Your task to perform on an android device: move a message to another label in the gmail app Image 0: 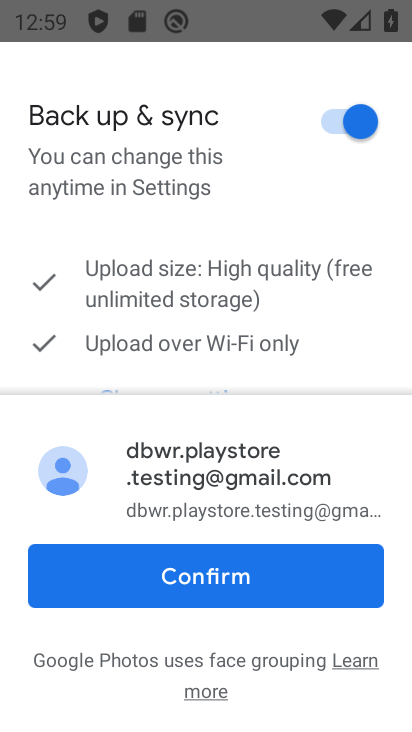
Step 0: press home button
Your task to perform on an android device: move a message to another label in the gmail app Image 1: 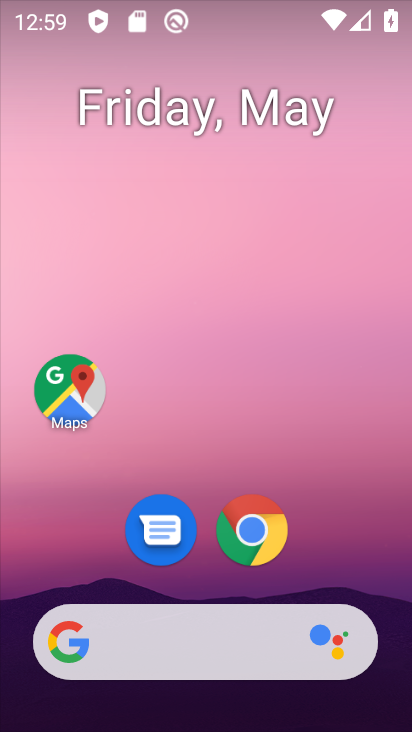
Step 1: drag from (312, 324) to (288, 0)
Your task to perform on an android device: move a message to another label in the gmail app Image 2: 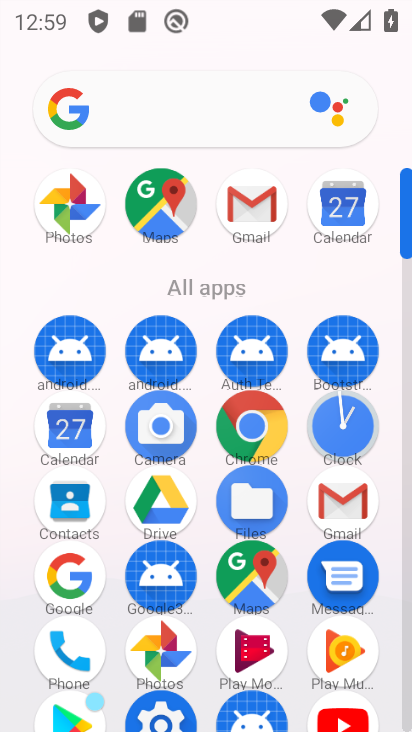
Step 2: click (355, 500)
Your task to perform on an android device: move a message to another label in the gmail app Image 3: 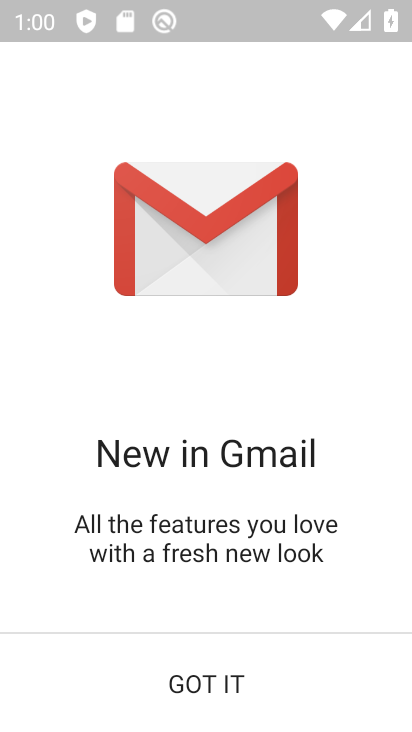
Step 3: click (194, 688)
Your task to perform on an android device: move a message to another label in the gmail app Image 4: 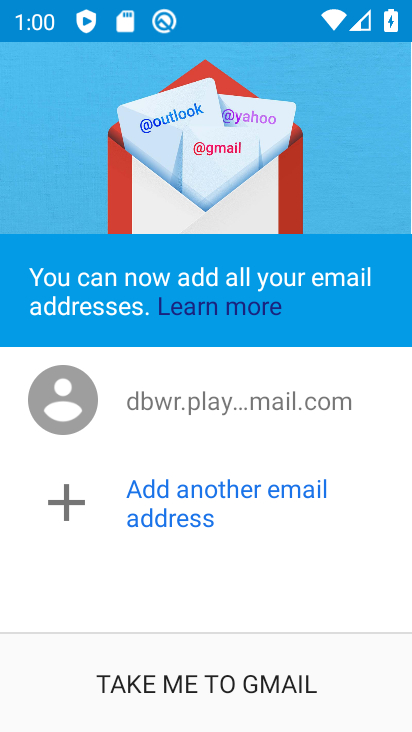
Step 4: click (211, 688)
Your task to perform on an android device: move a message to another label in the gmail app Image 5: 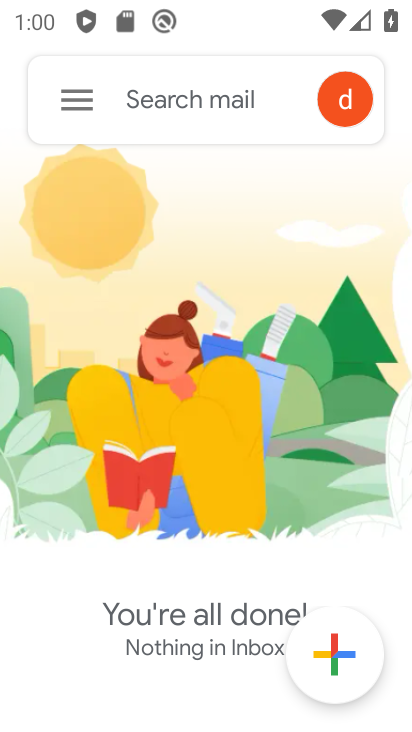
Step 5: click (69, 87)
Your task to perform on an android device: move a message to another label in the gmail app Image 6: 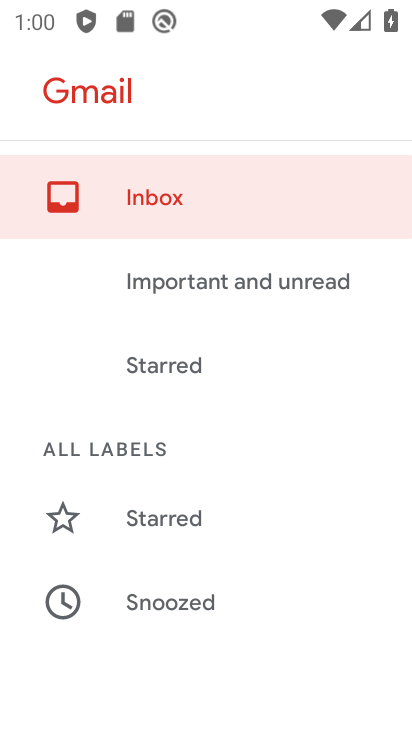
Step 6: drag from (185, 539) to (178, 114)
Your task to perform on an android device: move a message to another label in the gmail app Image 7: 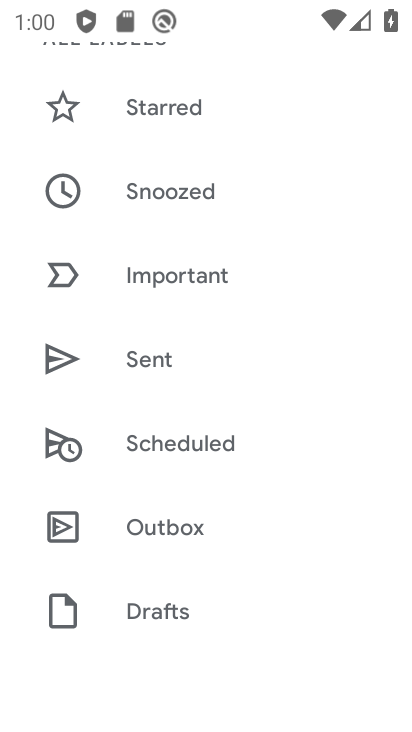
Step 7: drag from (193, 588) to (182, 189)
Your task to perform on an android device: move a message to another label in the gmail app Image 8: 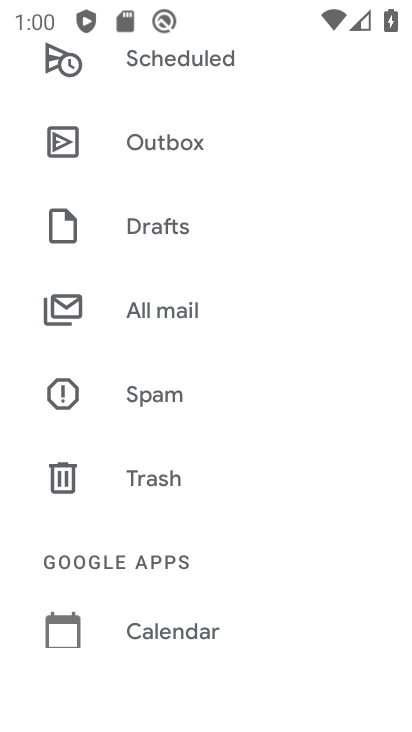
Step 8: drag from (227, 566) to (214, 99)
Your task to perform on an android device: move a message to another label in the gmail app Image 9: 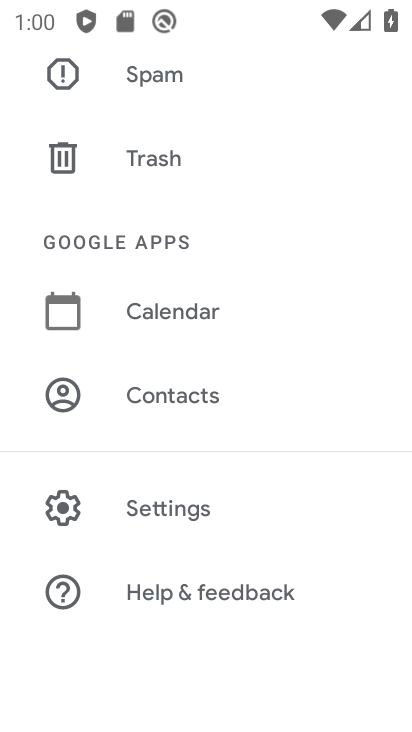
Step 9: drag from (156, 93) to (171, 338)
Your task to perform on an android device: move a message to another label in the gmail app Image 10: 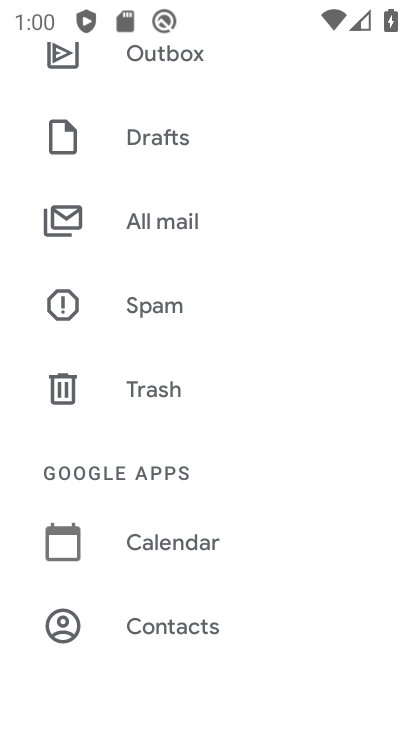
Step 10: click (180, 203)
Your task to perform on an android device: move a message to another label in the gmail app Image 11: 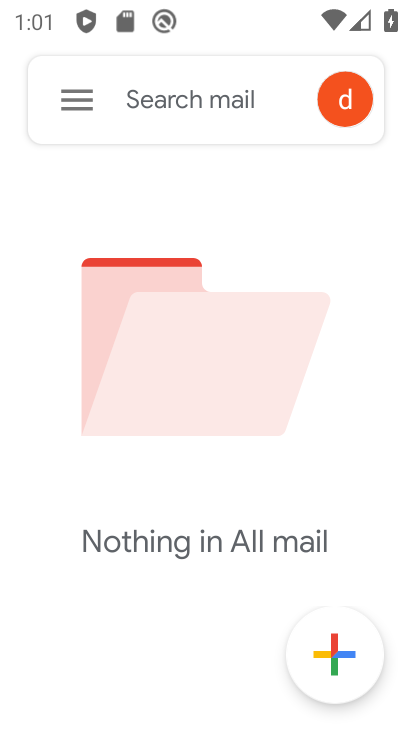
Step 11: task complete